Your task to perform on an android device: all mails in gmail Image 0: 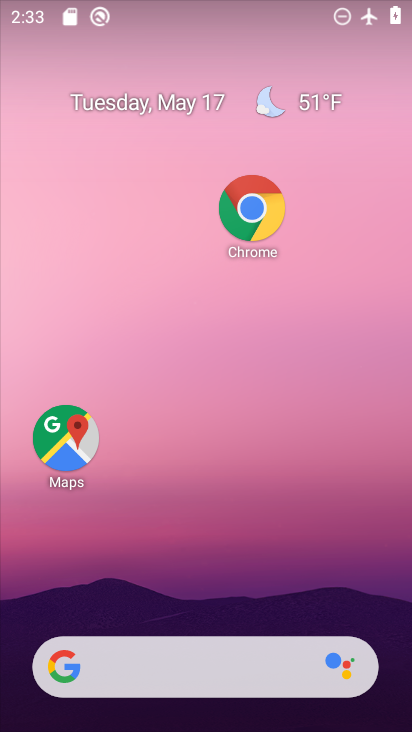
Step 0: drag from (224, 626) to (221, 109)
Your task to perform on an android device: all mails in gmail Image 1: 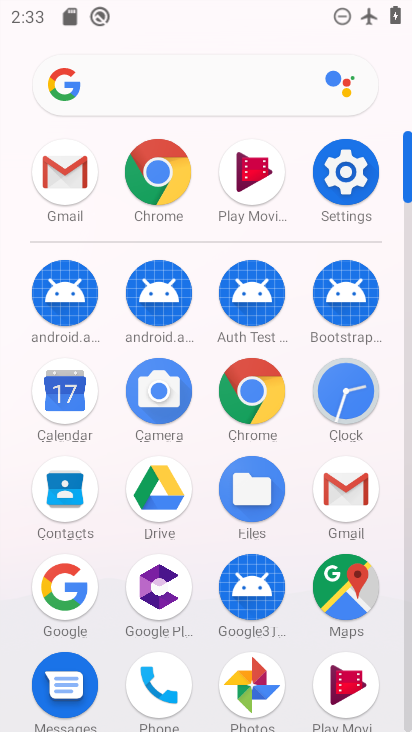
Step 1: click (346, 505)
Your task to perform on an android device: all mails in gmail Image 2: 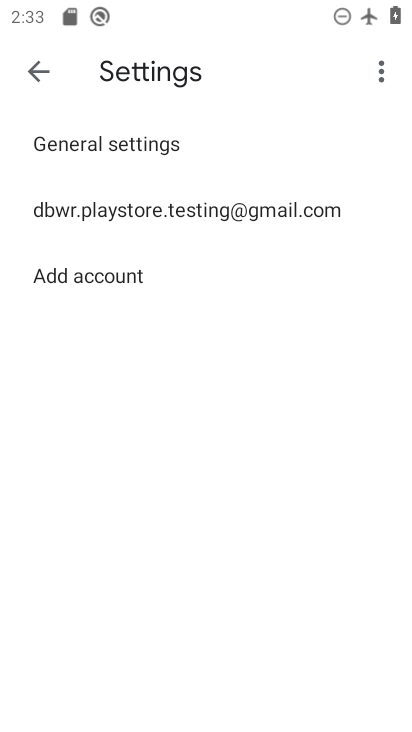
Step 2: click (44, 67)
Your task to perform on an android device: all mails in gmail Image 3: 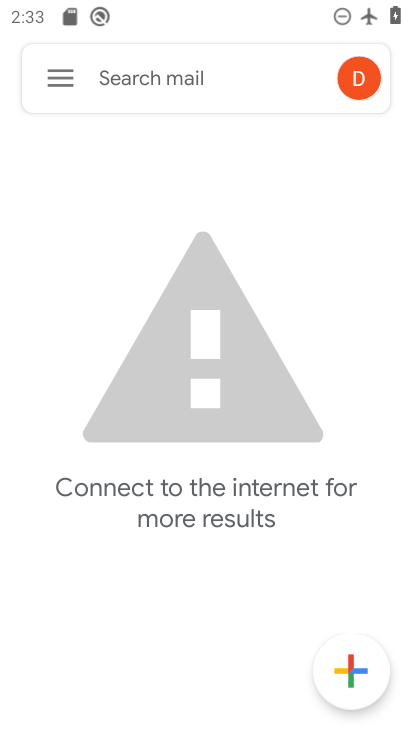
Step 3: click (44, 67)
Your task to perform on an android device: all mails in gmail Image 4: 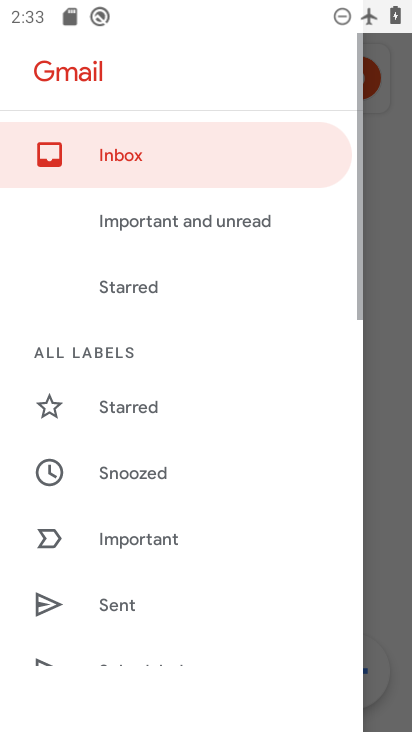
Step 4: drag from (132, 555) to (136, 134)
Your task to perform on an android device: all mails in gmail Image 5: 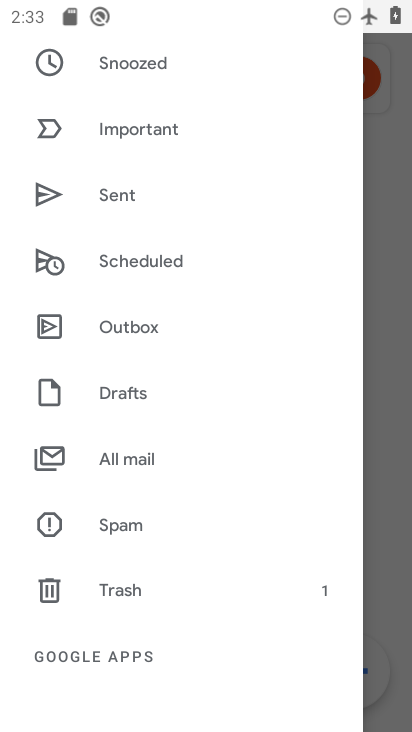
Step 5: drag from (227, 618) to (217, 220)
Your task to perform on an android device: all mails in gmail Image 6: 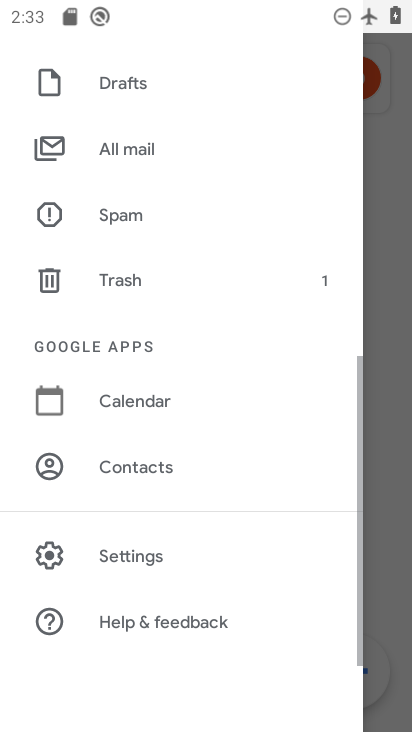
Step 6: click (170, 151)
Your task to perform on an android device: all mails in gmail Image 7: 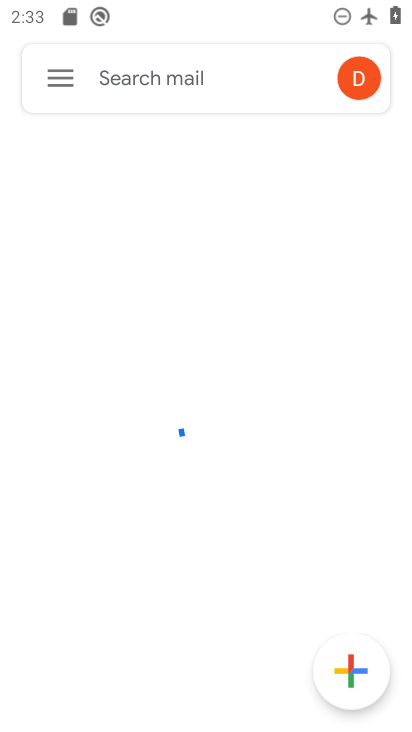
Step 7: task complete